Your task to perform on an android device: open chrome and create a bookmark for the current page Image 0: 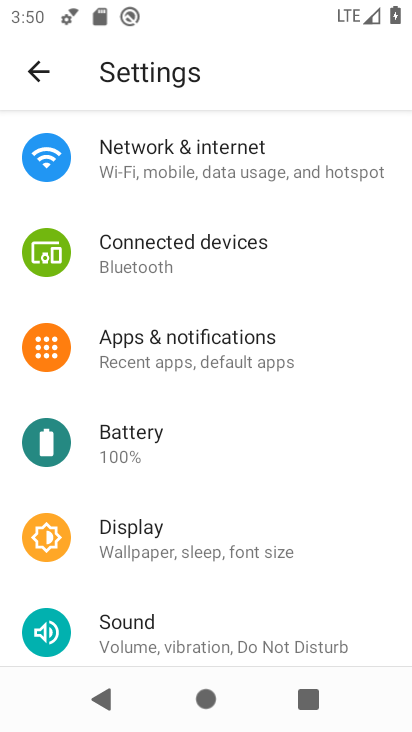
Step 0: press home button
Your task to perform on an android device: open chrome and create a bookmark for the current page Image 1: 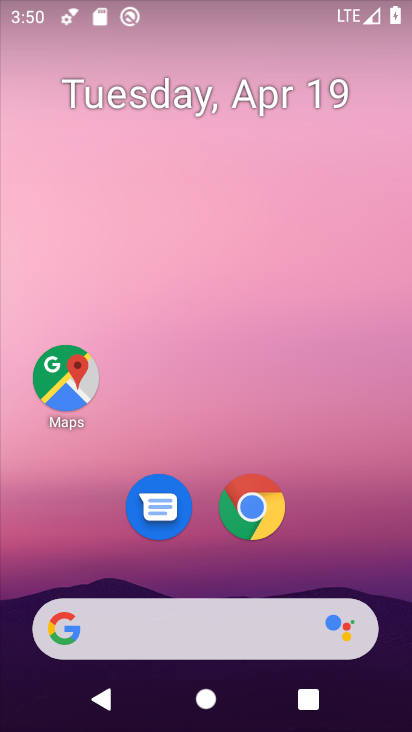
Step 1: click (243, 514)
Your task to perform on an android device: open chrome and create a bookmark for the current page Image 2: 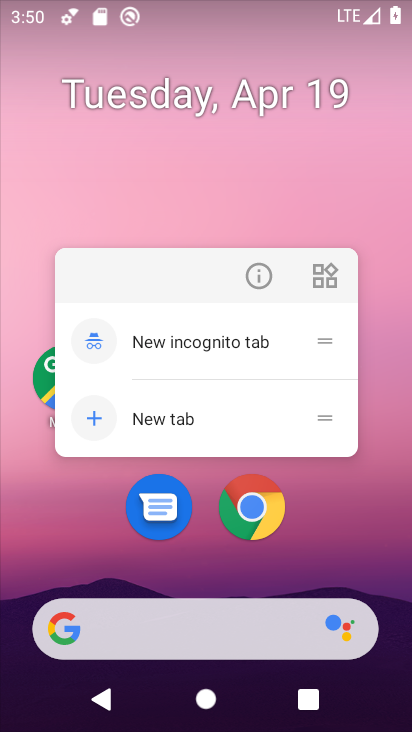
Step 2: click (226, 520)
Your task to perform on an android device: open chrome and create a bookmark for the current page Image 3: 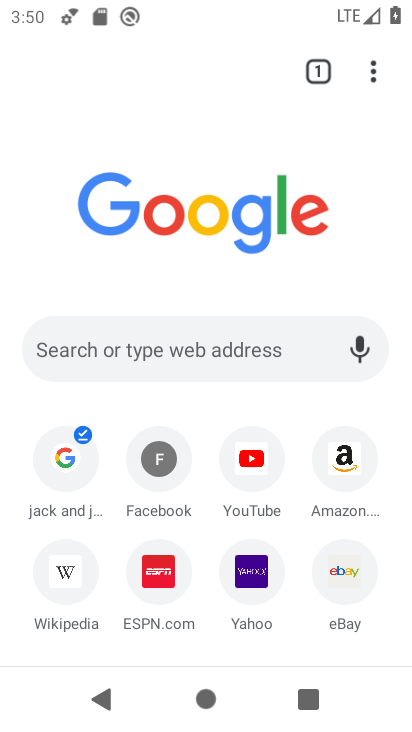
Step 3: click (372, 86)
Your task to perform on an android device: open chrome and create a bookmark for the current page Image 4: 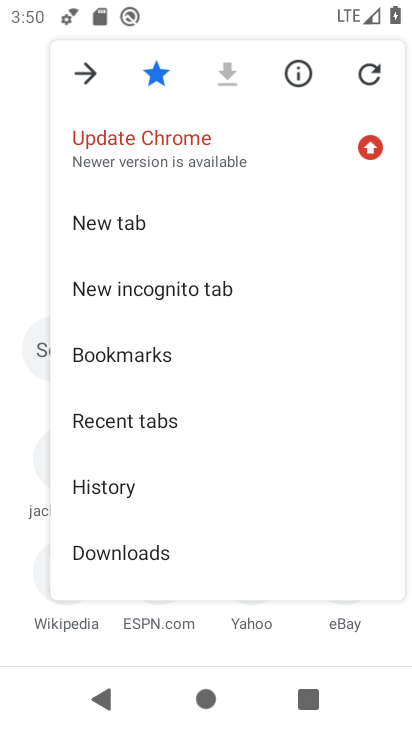
Step 4: task complete